Your task to perform on an android device: check google app version Image 0: 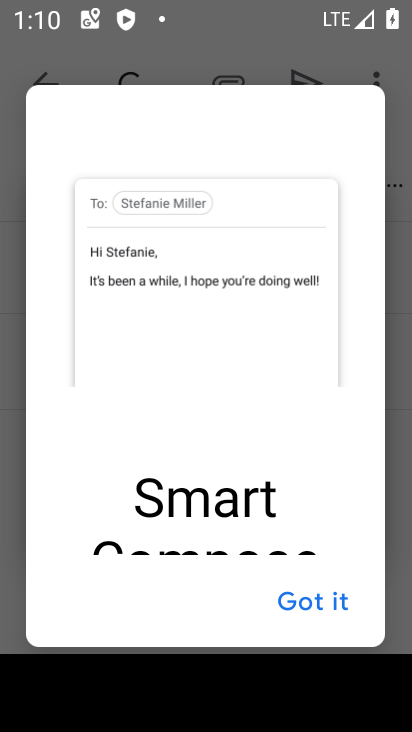
Step 0: press home button
Your task to perform on an android device: check google app version Image 1: 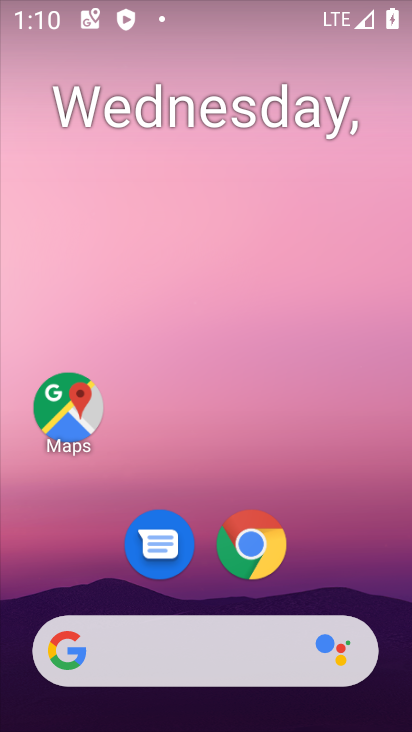
Step 1: drag from (391, 663) to (382, 16)
Your task to perform on an android device: check google app version Image 2: 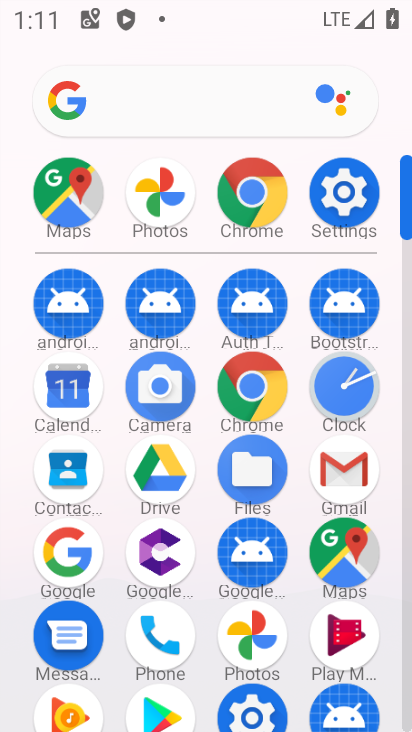
Step 2: click (63, 565)
Your task to perform on an android device: check google app version Image 3: 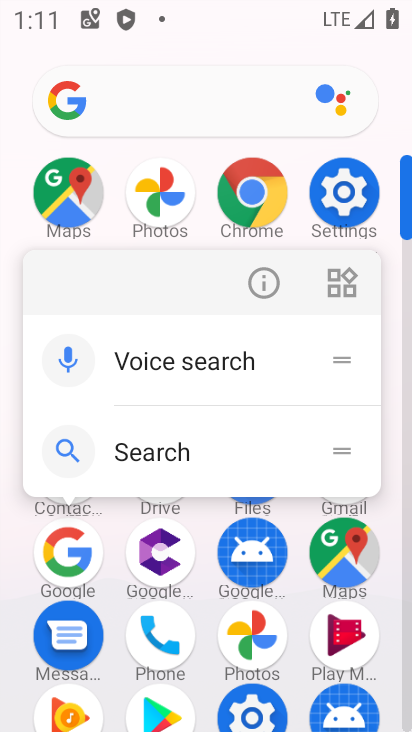
Step 3: click (254, 277)
Your task to perform on an android device: check google app version Image 4: 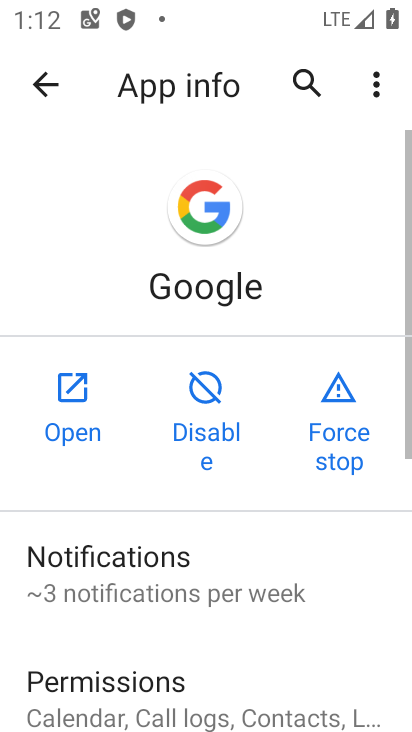
Step 4: drag from (298, 682) to (341, 8)
Your task to perform on an android device: check google app version Image 5: 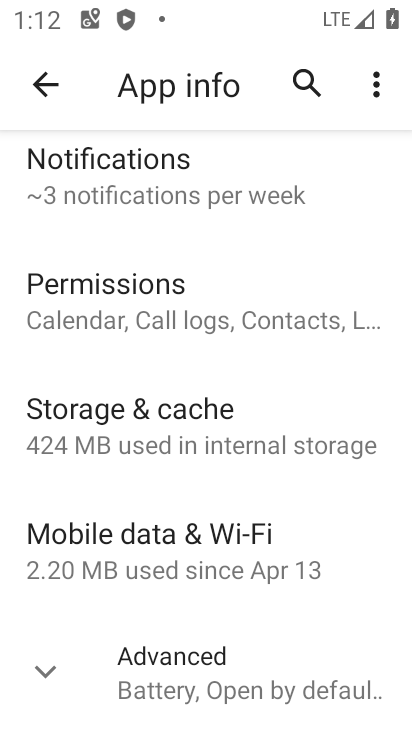
Step 5: click (43, 652)
Your task to perform on an android device: check google app version Image 6: 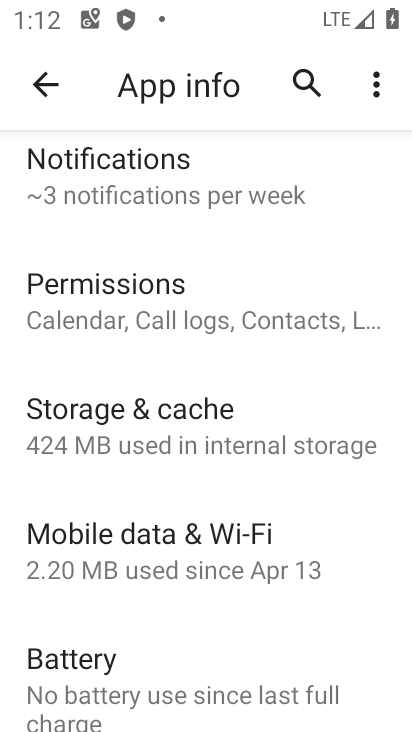
Step 6: task complete